Your task to perform on an android device: Do I have any events tomorrow? Image 0: 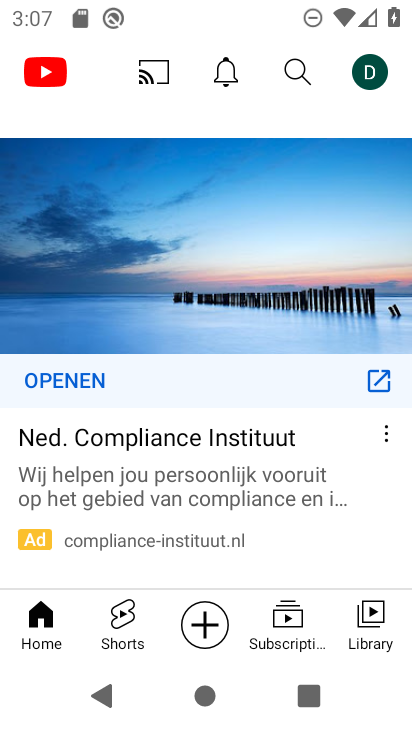
Step 0: press home button
Your task to perform on an android device: Do I have any events tomorrow? Image 1: 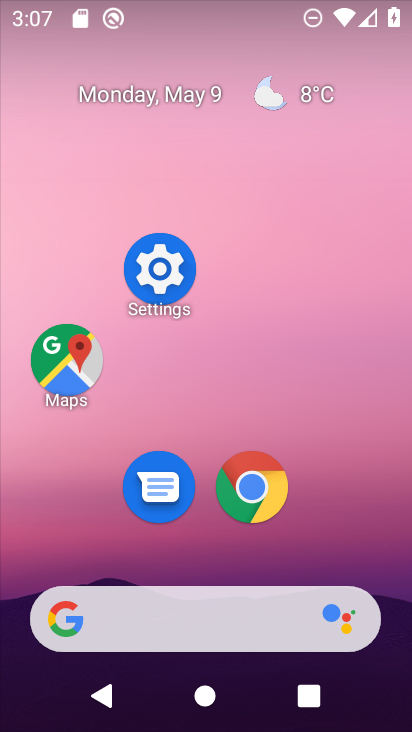
Step 1: drag from (332, 544) to (274, 80)
Your task to perform on an android device: Do I have any events tomorrow? Image 2: 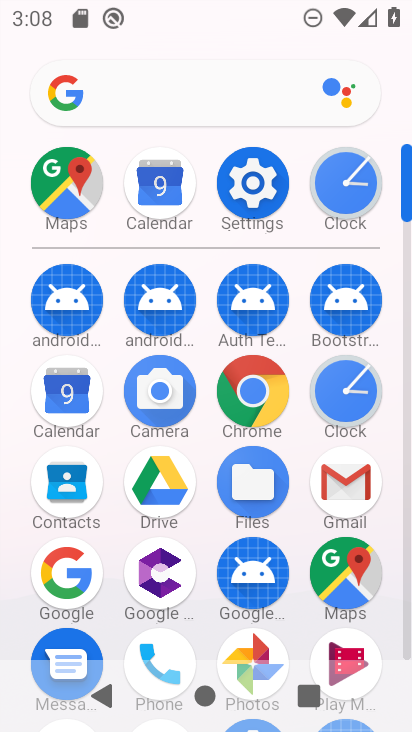
Step 2: click (48, 392)
Your task to perform on an android device: Do I have any events tomorrow? Image 3: 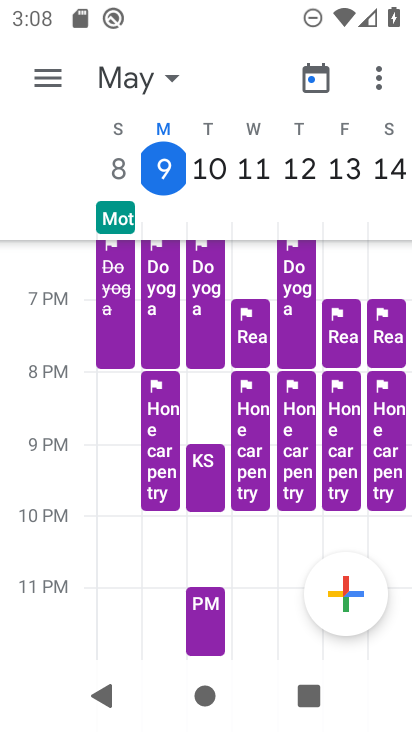
Step 3: click (44, 85)
Your task to perform on an android device: Do I have any events tomorrow? Image 4: 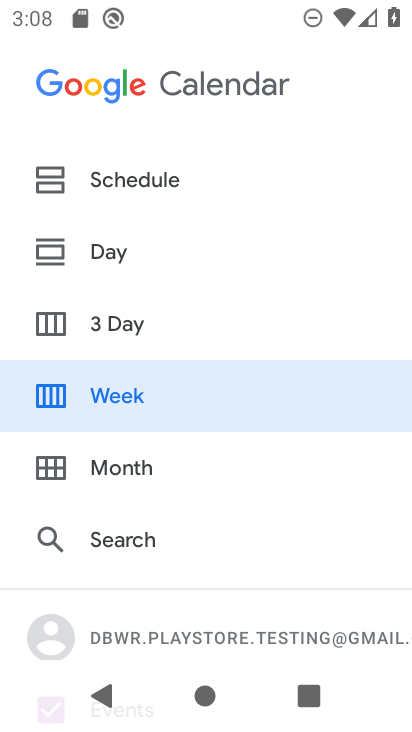
Step 4: click (113, 243)
Your task to perform on an android device: Do I have any events tomorrow? Image 5: 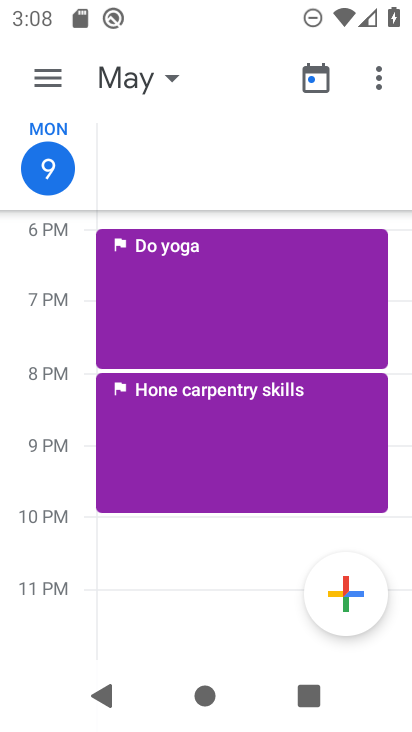
Step 5: click (165, 68)
Your task to perform on an android device: Do I have any events tomorrow? Image 6: 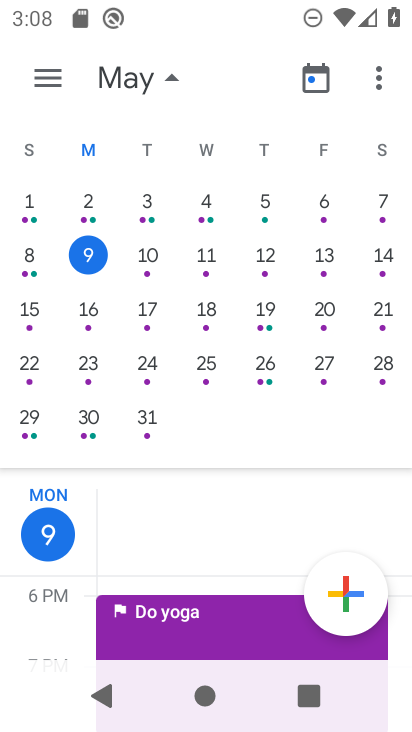
Step 6: click (145, 261)
Your task to perform on an android device: Do I have any events tomorrow? Image 7: 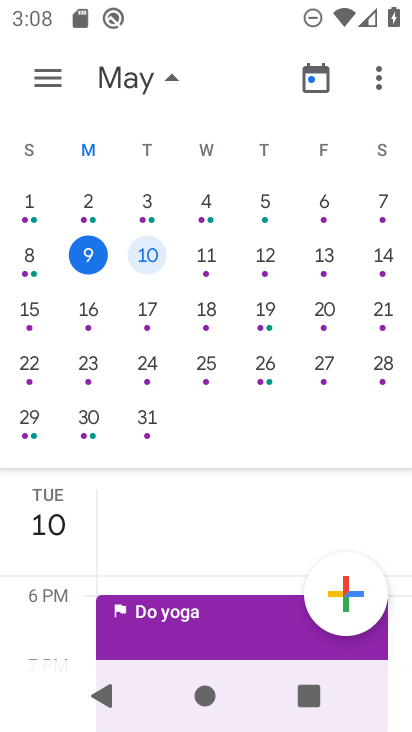
Step 7: task complete